Your task to perform on an android device: turn pop-ups off in chrome Image 0: 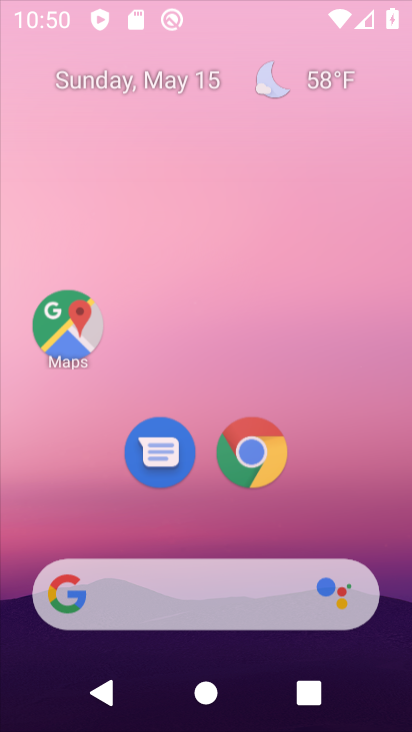
Step 0: click (251, 466)
Your task to perform on an android device: turn pop-ups off in chrome Image 1: 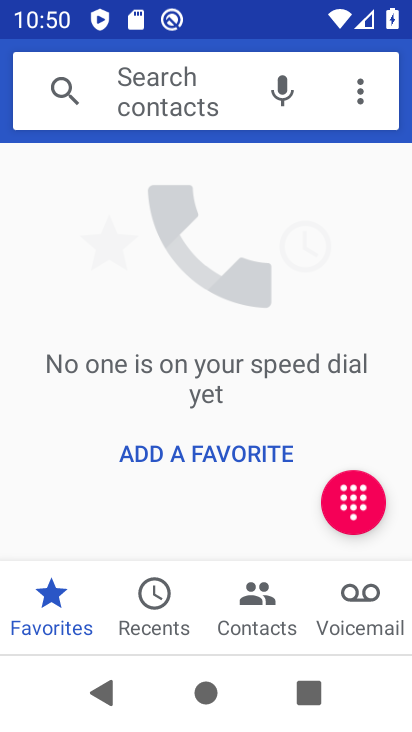
Step 1: press home button
Your task to perform on an android device: turn pop-ups off in chrome Image 2: 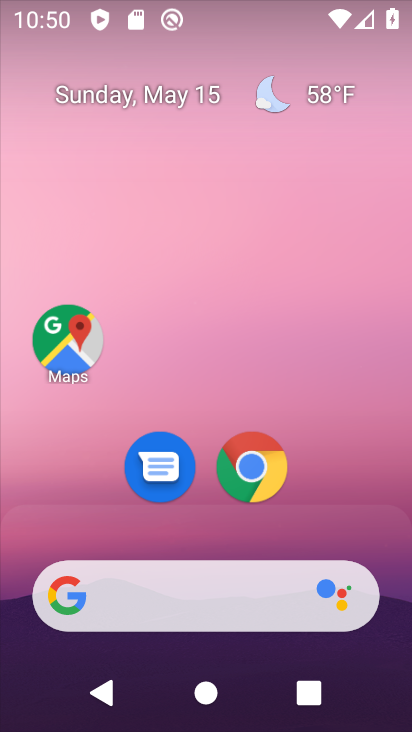
Step 2: click (257, 459)
Your task to perform on an android device: turn pop-ups off in chrome Image 3: 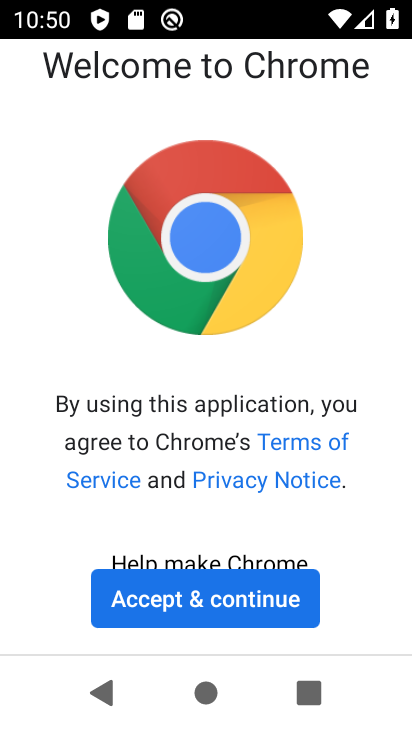
Step 3: click (203, 598)
Your task to perform on an android device: turn pop-ups off in chrome Image 4: 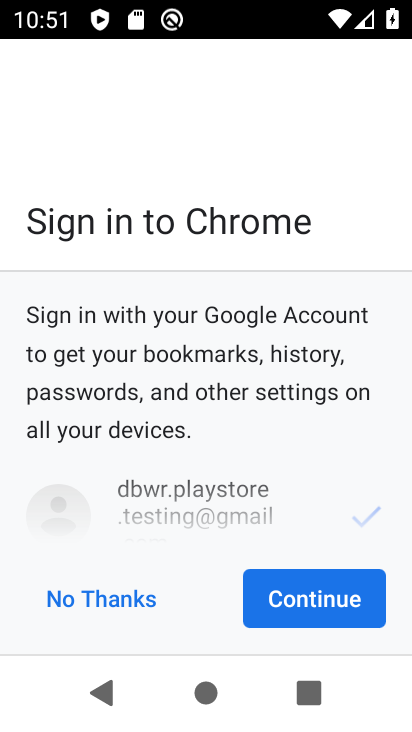
Step 4: click (321, 593)
Your task to perform on an android device: turn pop-ups off in chrome Image 5: 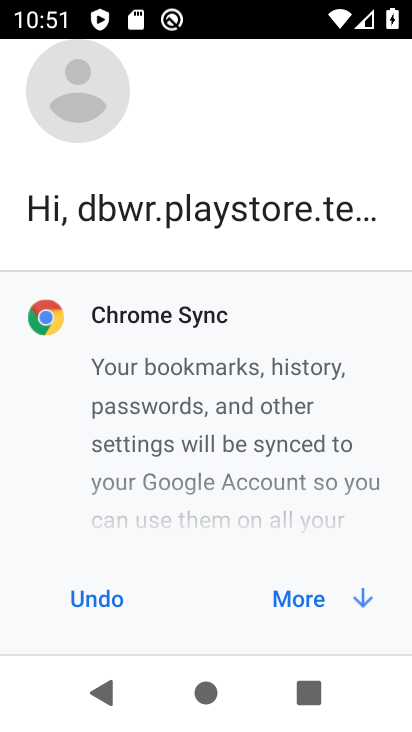
Step 5: click (309, 593)
Your task to perform on an android device: turn pop-ups off in chrome Image 6: 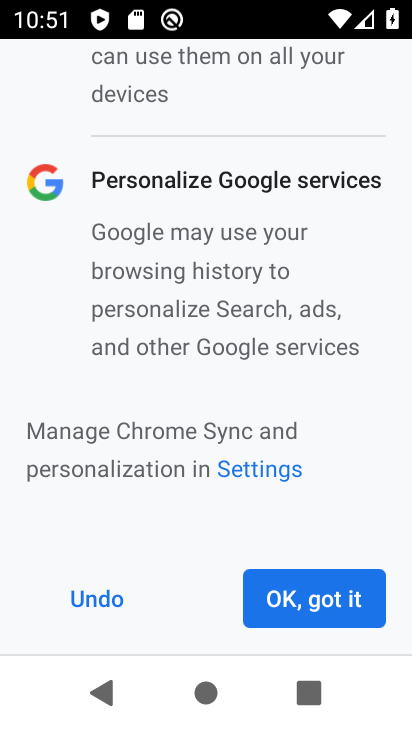
Step 6: click (329, 601)
Your task to perform on an android device: turn pop-ups off in chrome Image 7: 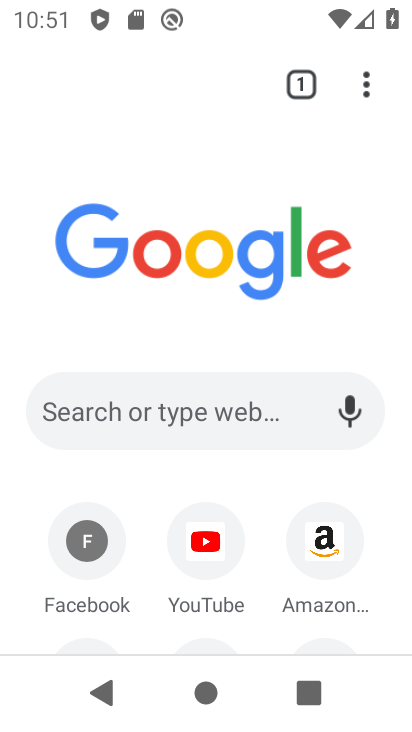
Step 7: click (364, 85)
Your task to perform on an android device: turn pop-ups off in chrome Image 8: 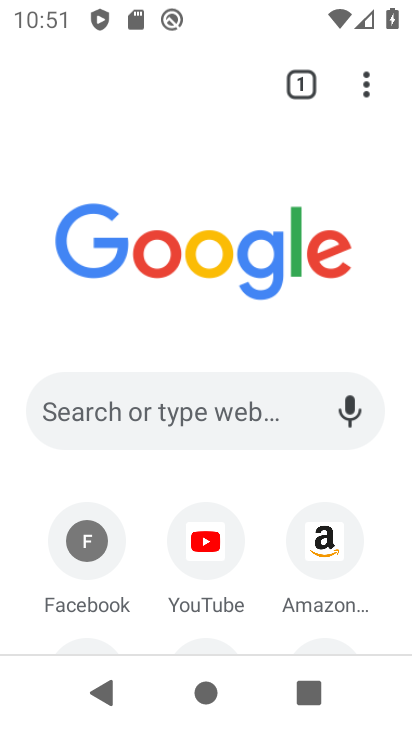
Step 8: click (355, 83)
Your task to perform on an android device: turn pop-ups off in chrome Image 9: 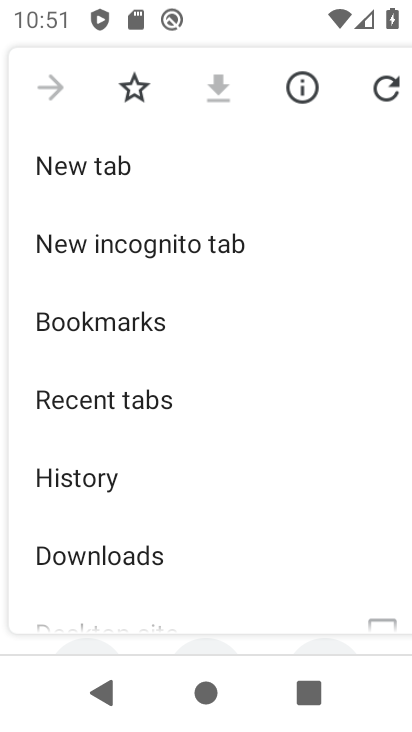
Step 9: drag from (211, 506) to (231, 81)
Your task to perform on an android device: turn pop-ups off in chrome Image 10: 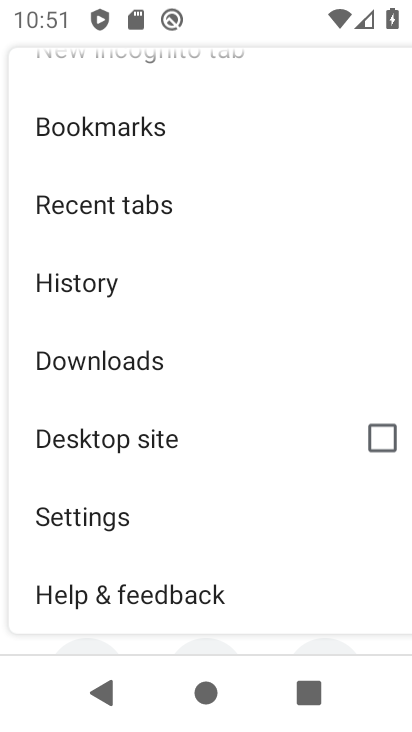
Step 10: click (129, 510)
Your task to perform on an android device: turn pop-ups off in chrome Image 11: 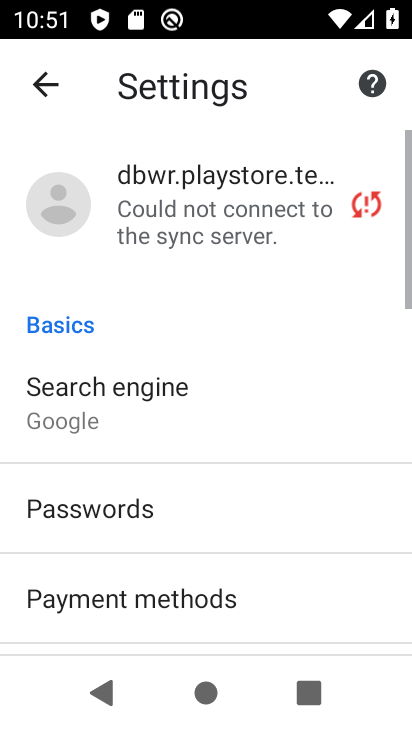
Step 11: drag from (204, 549) to (259, 166)
Your task to perform on an android device: turn pop-ups off in chrome Image 12: 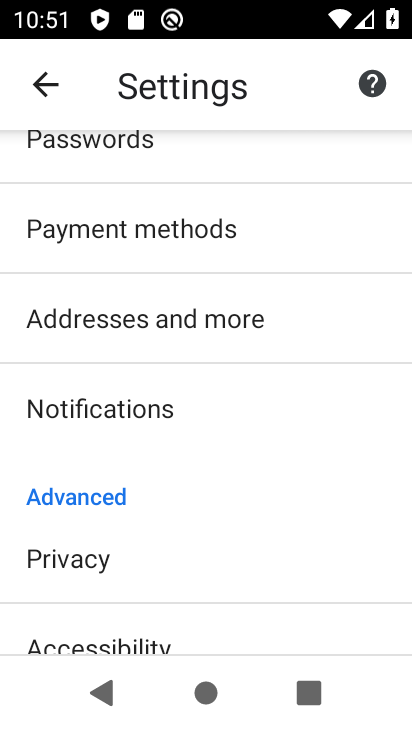
Step 12: drag from (260, 609) to (298, 242)
Your task to perform on an android device: turn pop-ups off in chrome Image 13: 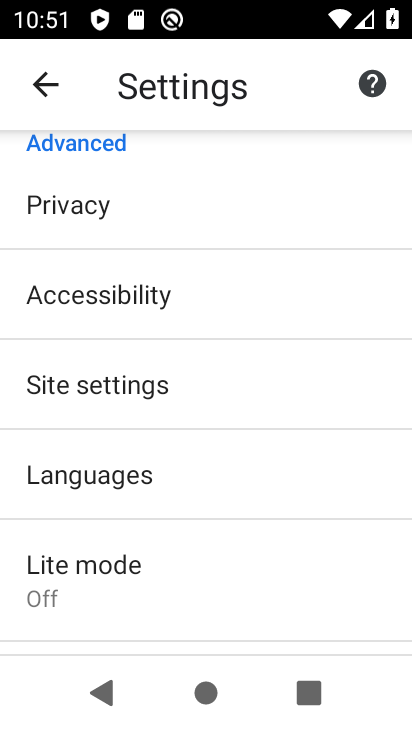
Step 13: click (155, 381)
Your task to perform on an android device: turn pop-ups off in chrome Image 14: 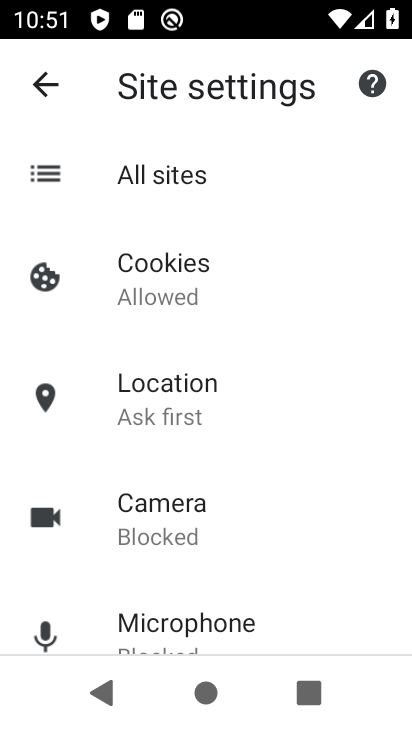
Step 14: drag from (220, 408) to (230, 121)
Your task to perform on an android device: turn pop-ups off in chrome Image 15: 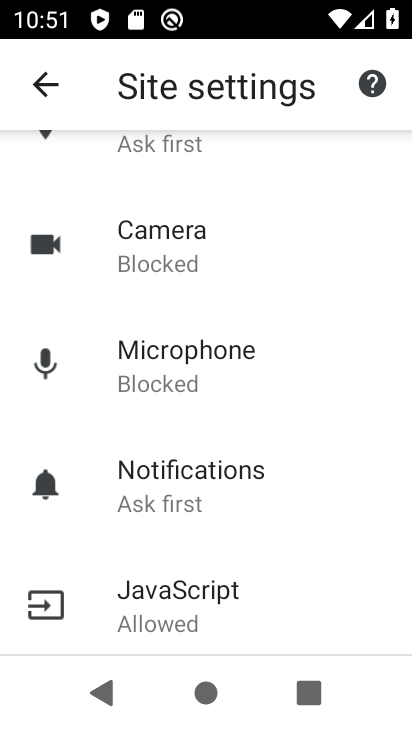
Step 15: drag from (207, 598) to (217, 143)
Your task to perform on an android device: turn pop-ups off in chrome Image 16: 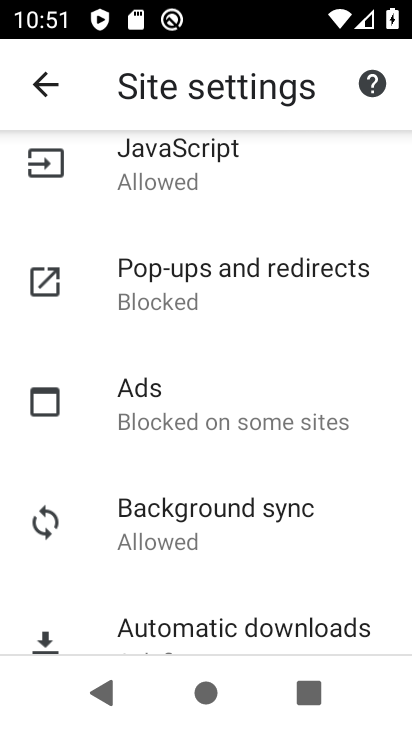
Step 16: click (216, 293)
Your task to perform on an android device: turn pop-ups off in chrome Image 17: 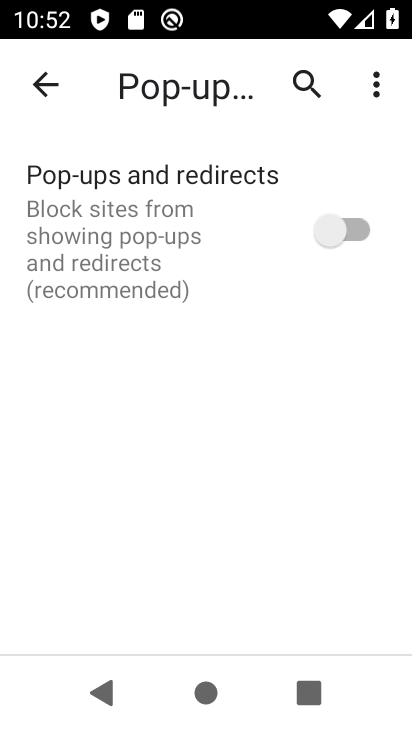
Step 17: task complete